Your task to perform on an android device: turn on bluetooth scan Image 0: 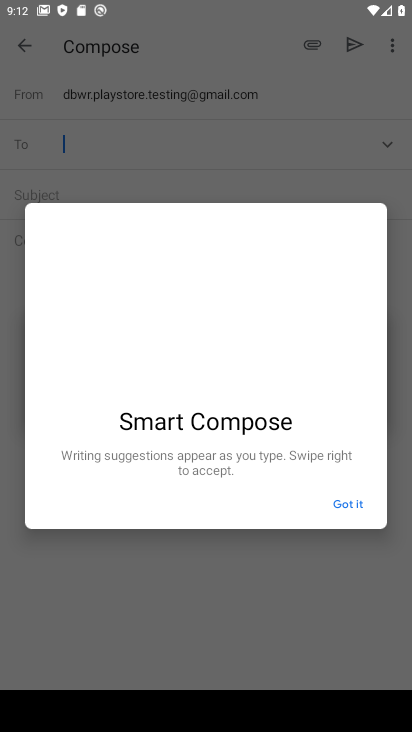
Step 0: press home button
Your task to perform on an android device: turn on bluetooth scan Image 1: 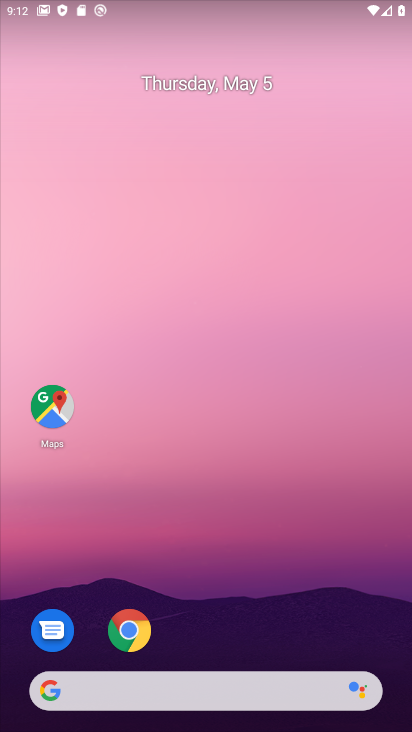
Step 1: drag from (221, 610) to (73, 102)
Your task to perform on an android device: turn on bluetooth scan Image 2: 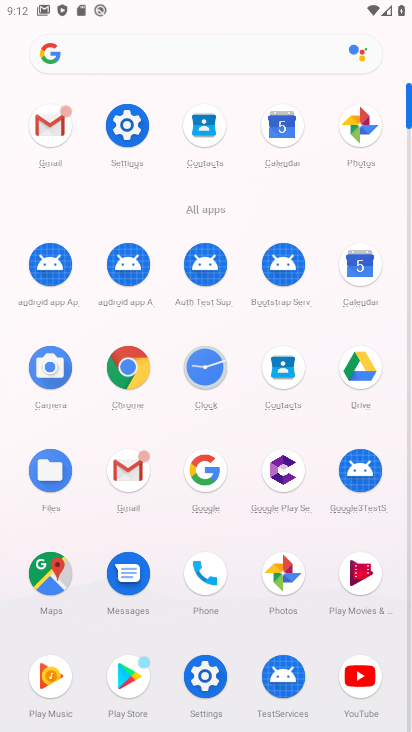
Step 2: click (123, 129)
Your task to perform on an android device: turn on bluetooth scan Image 3: 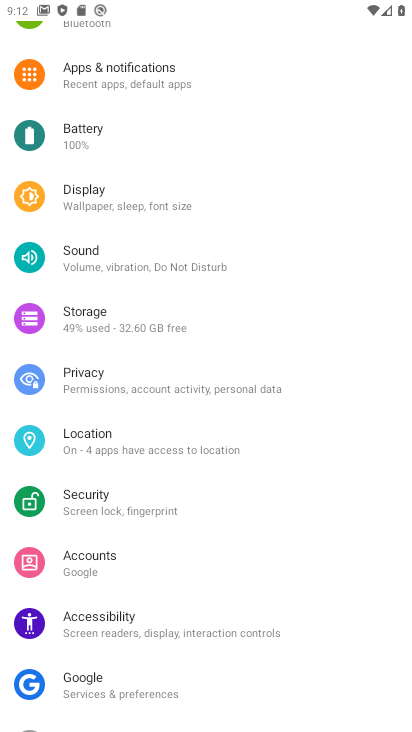
Step 3: click (89, 446)
Your task to perform on an android device: turn on bluetooth scan Image 4: 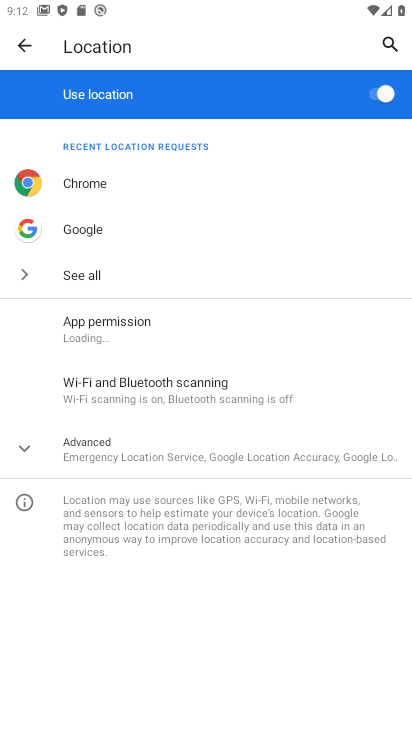
Step 4: click (188, 398)
Your task to perform on an android device: turn on bluetooth scan Image 5: 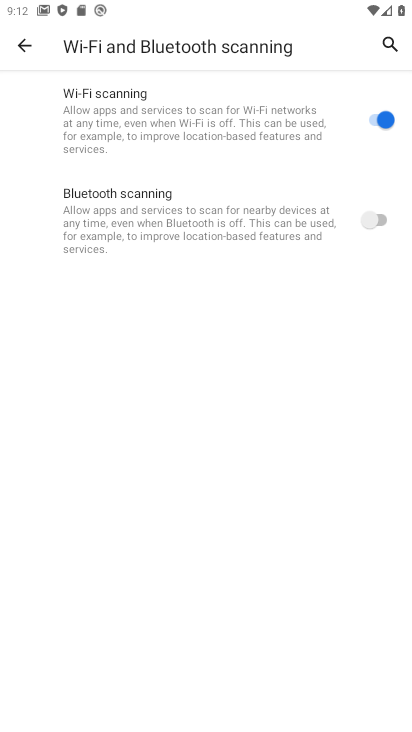
Step 5: click (372, 227)
Your task to perform on an android device: turn on bluetooth scan Image 6: 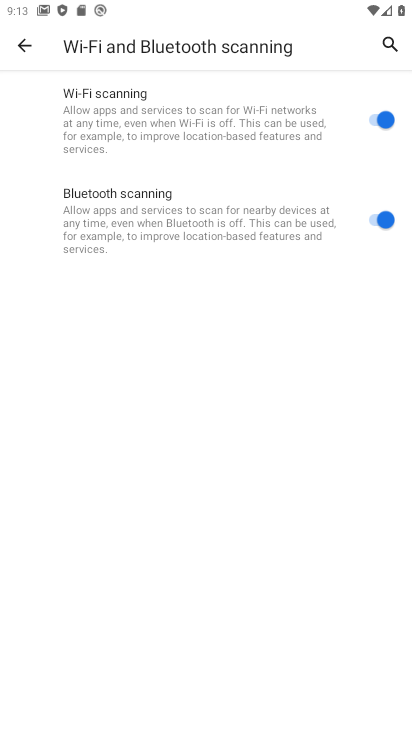
Step 6: task complete